Your task to perform on an android device: add a label to a message in the gmail app Image 0: 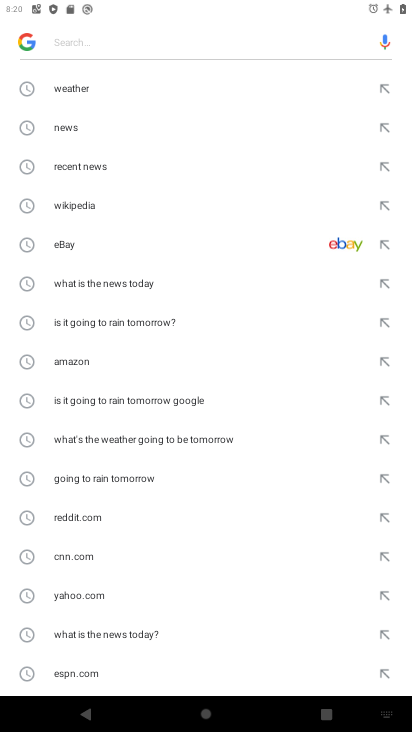
Step 0: press home button
Your task to perform on an android device: add a label to a message in the gmail app Image 1: 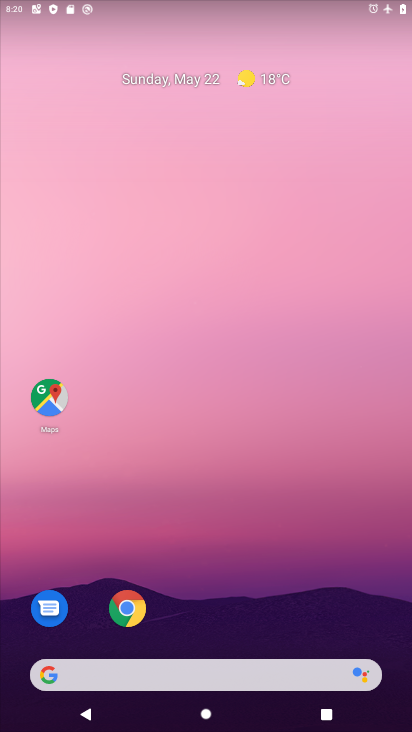
Step 1: drag from (234, 727) to (273, 104)
Your task to perform on an android device: add a label to a message in the gmail app Image 2: 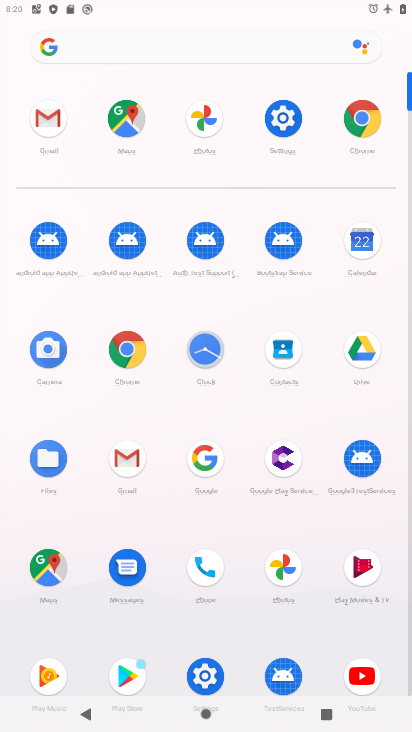
Step 2: click (127, 452)
Your task to perform on an android device: add a label to a message in the gmail app Image 3: 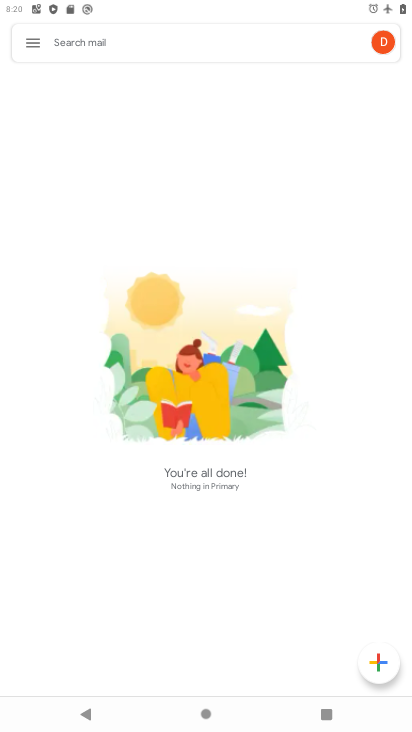
Step 3: click (30, 45)
Your task to perform on an android device: add a label to a message in the gmail app Image 4: 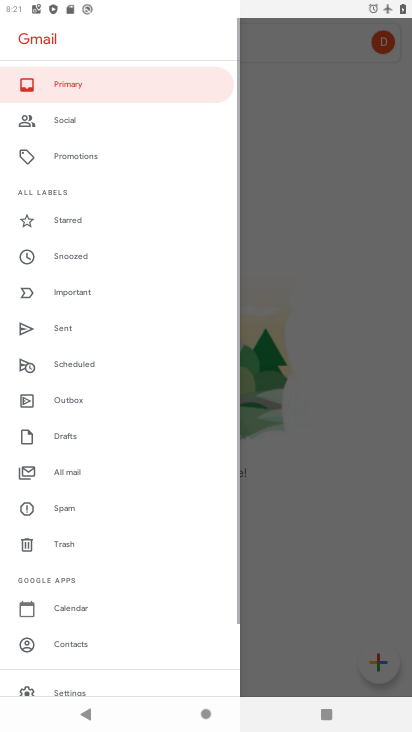
Step 4: drag from (107, 98) to (106, 424)
Your task to perform on an android device: add a label to a message in the gmail app Image 5: 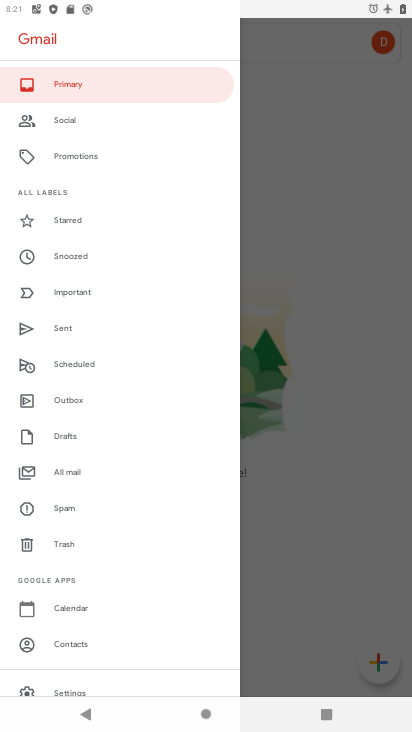
Step 5: click (107, 82)
Your task to perform on an android device: add a label to a message in the gmail app Image 6: 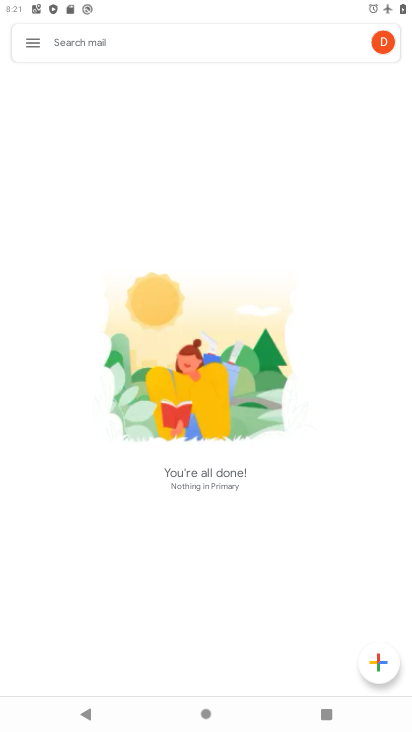
Step 6: task complete